Your task to perform on an android device: set an alarm Image 0: 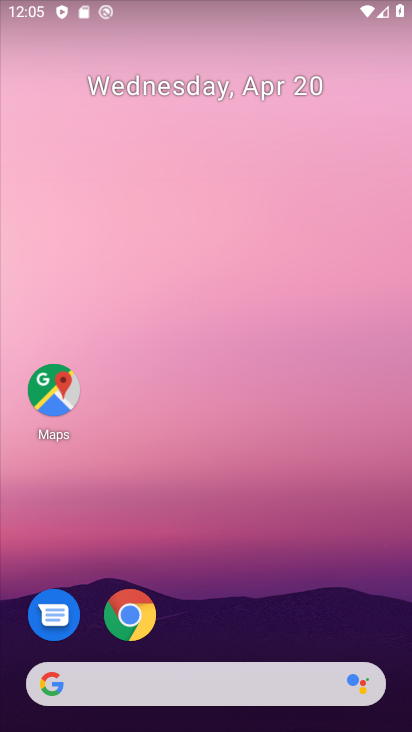
Step 0: drag from (328, 438) to (328, 131)
Your task to perform on an android device: set an alarm Image 1: 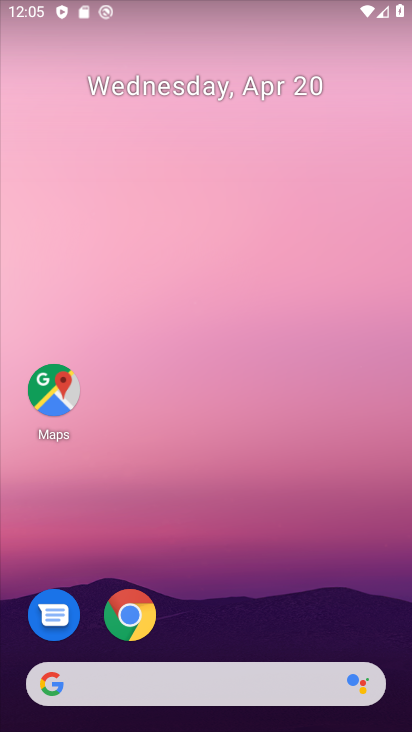
Step 1: click (309, 159)
Your task to perform on an android device: set an alarm Image 2: 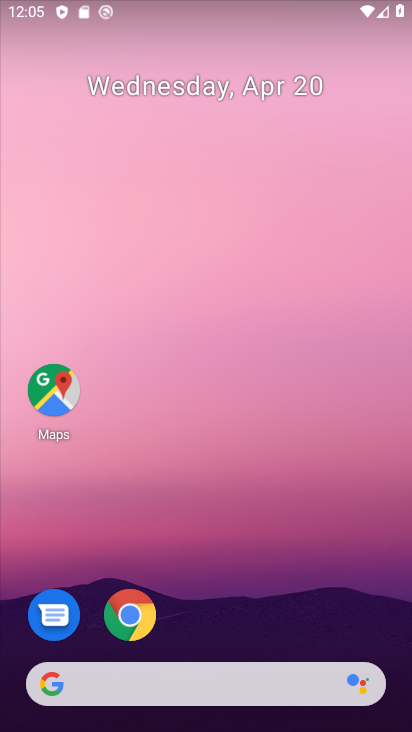
Step 2: drag from (392, 228) to (386, 17)
Your task to perform on an android device: set an alarm Image 3: 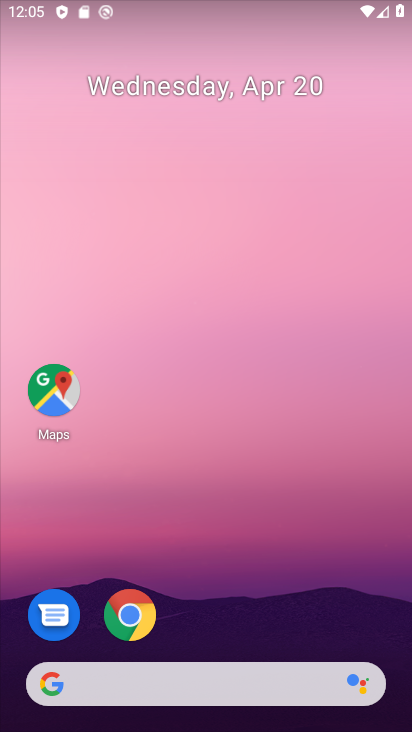
Step 3: drag from (359, 504) to (338, 5)
Your task to perform on an android device: set an alarm Image 4: 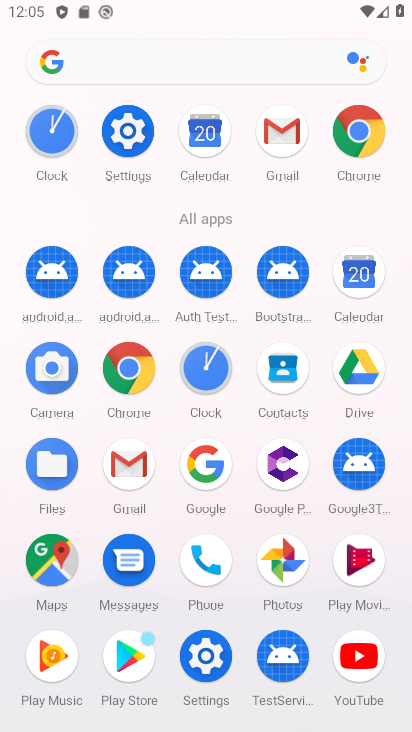
Step 4: click (204, 380)
Your task to perform on an android device: set an alarm Image 5: 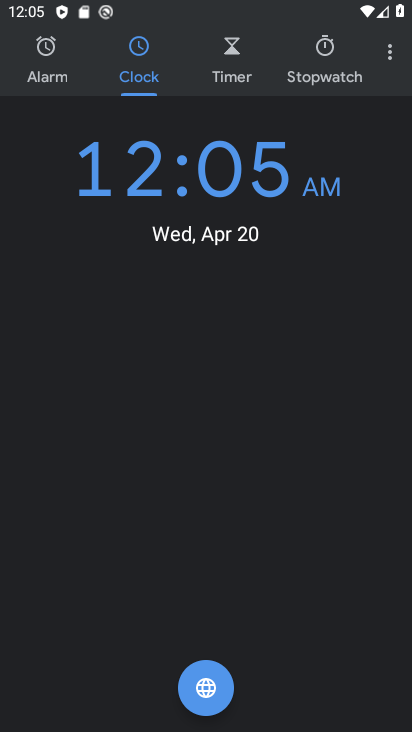
Step 5: click (31, 61)
Your task to perform on an android device: set an alarm Image 6: 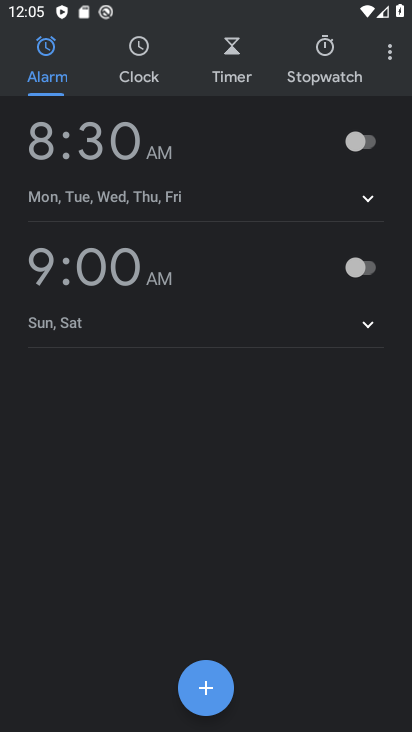
Step 6: click (363, 268)
Your task to perform on an android device: set an alarm Image 7: 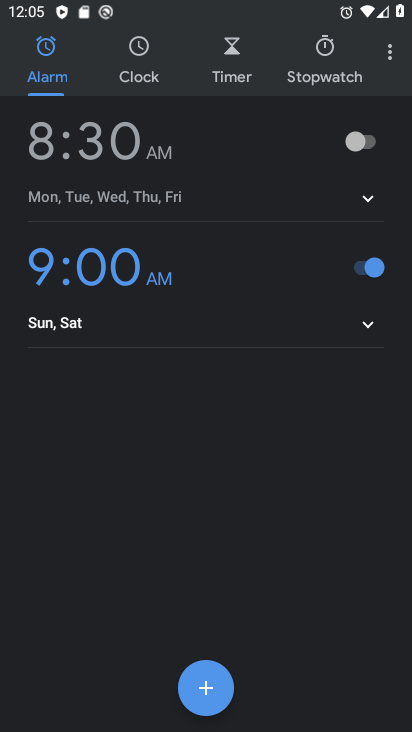
Step 7: task complete